Your task to perform on an android device: Open Yahoo.com Image 0: 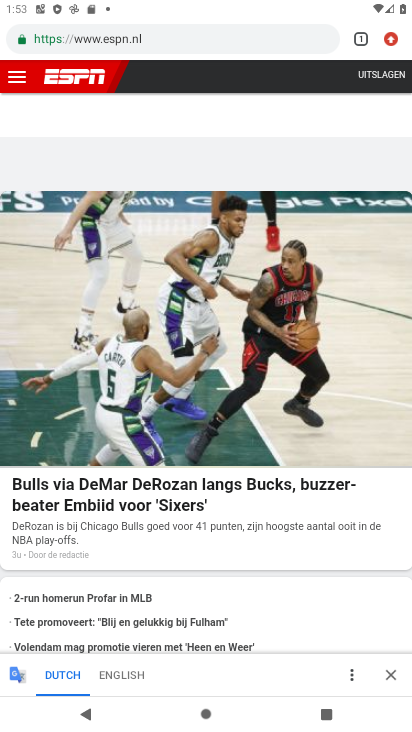
Step 0: click (366, 39)
Your task to perform on an android device: Open Yahoo.com Image 1: 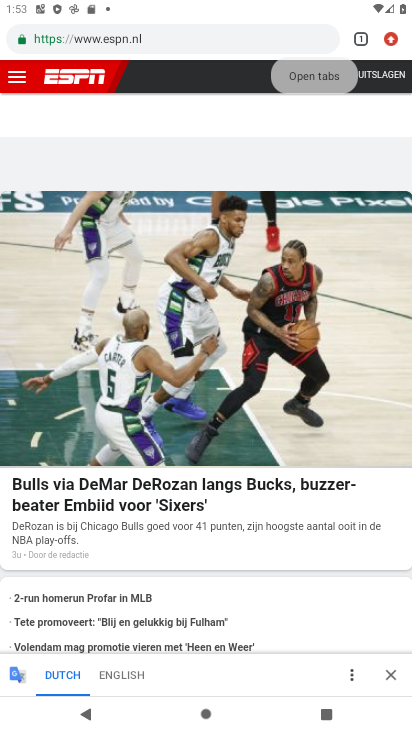
Step 1: click (361, 32)
Your task to perform on an android device: Open Yahoo.com Image 2: 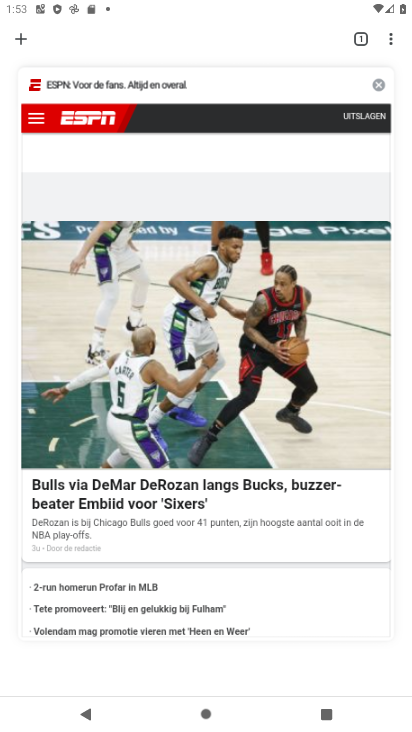
Step 2: click (15, 41)
Your task to perform on an android device: Open Yahoo.com Image 3: 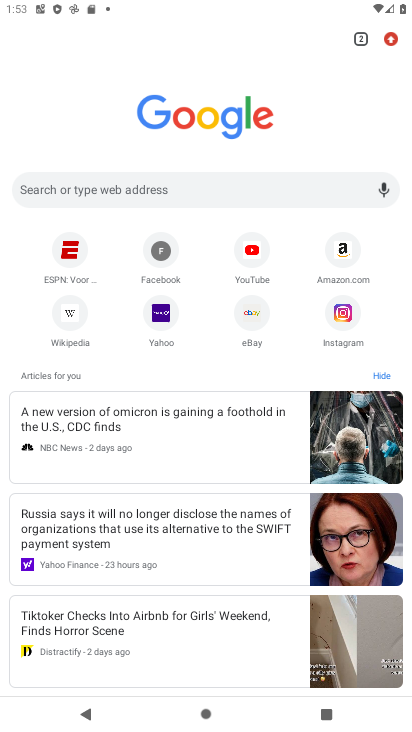
Step 3: click (164, 314)
Your task to perform on an android device: Open Yahoo.com Image 4: 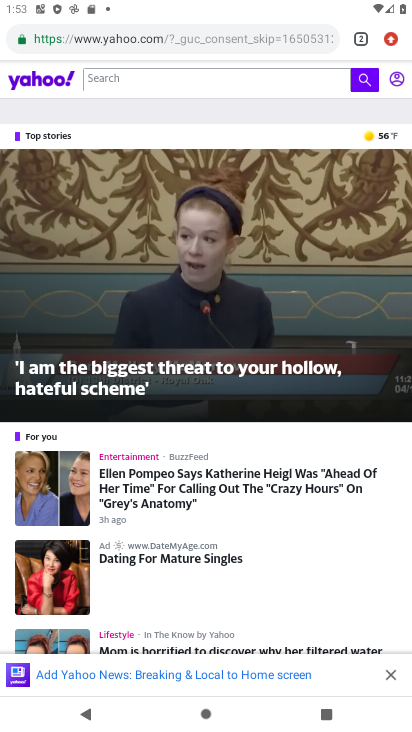
Step 4: task complete